Your task to perform on an android device: Go to eBay Image 0: 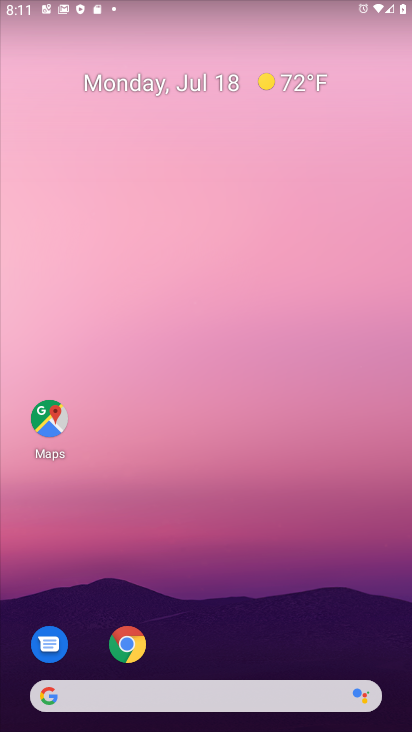
Step 0: drag from (393, 646) to (270, 60)
Your task to perform on an android device: Go to eBay Image 1: 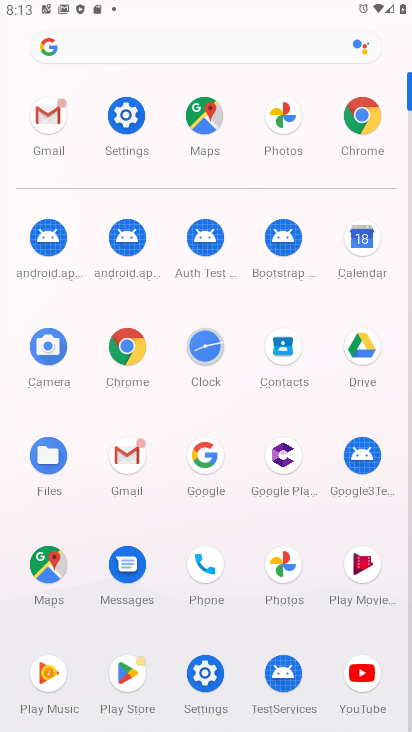
Step 1: click (208, 460)
Your task to perform on an android device: Go to eBay Image 2: 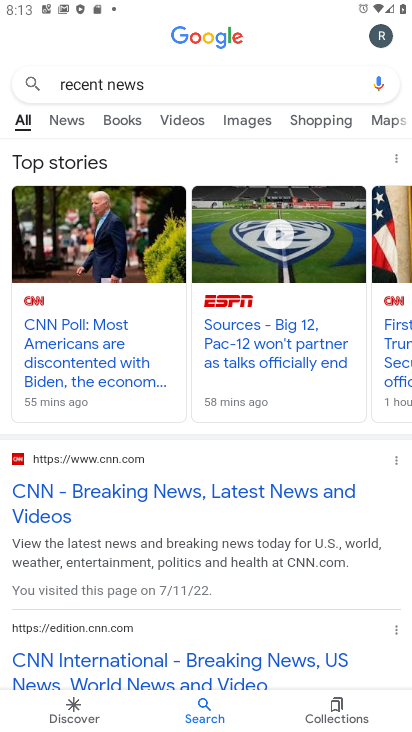
Step 2: press back button
Your task to perform on an android device: Go to eBay Image 3: 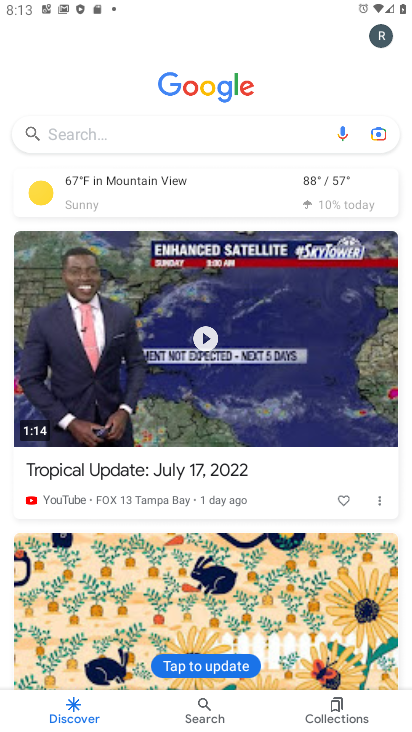
Step 3: click (66, 144)
Your task to perform on an android device: Go to eBay Image 4: 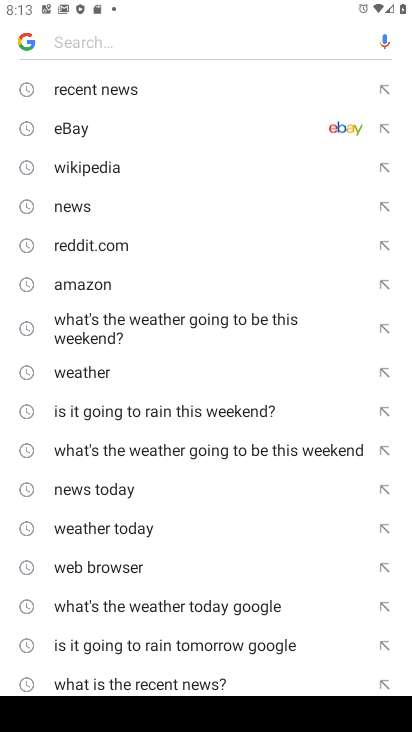
Step 4: click (103, 136)
Your task to perform on an android device: Go to eBay Image 5: 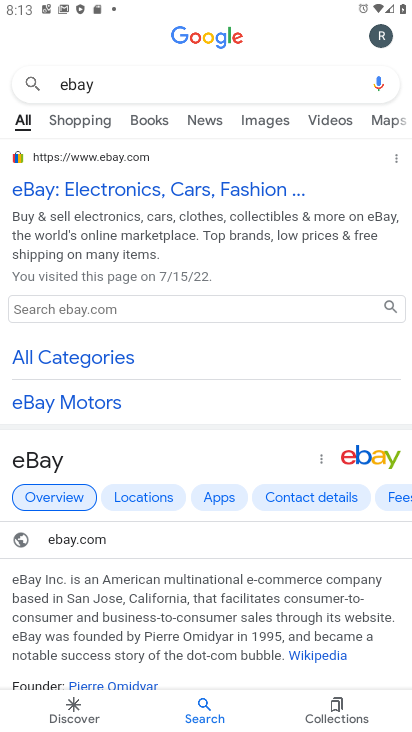
Step 5: task complete